Your task to perform on an android device: open a new tab in the chrome app Image 0: 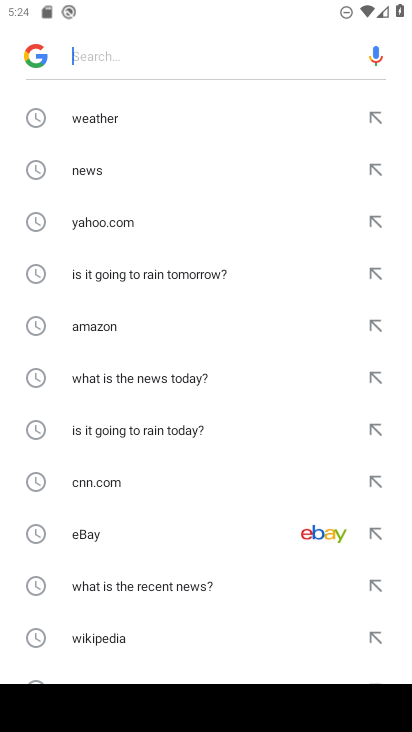
Step 0: press home button
Your task to perform on an android device: open a new tab in the chrome app Image 1: 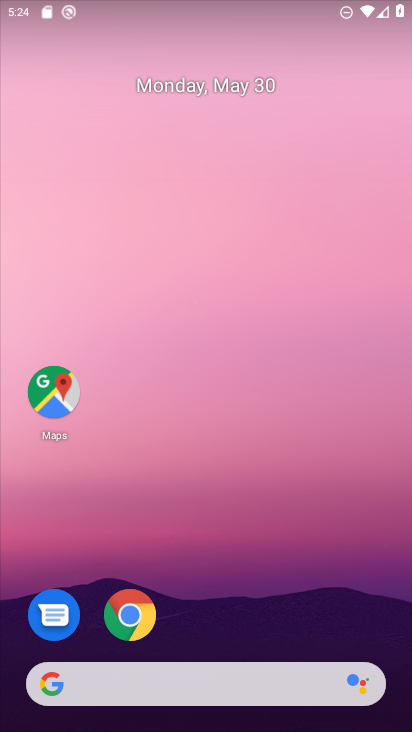
Step 1: click (141, 615)
Your task to perform on an android device: open a new tab in the chrome app Image 2: 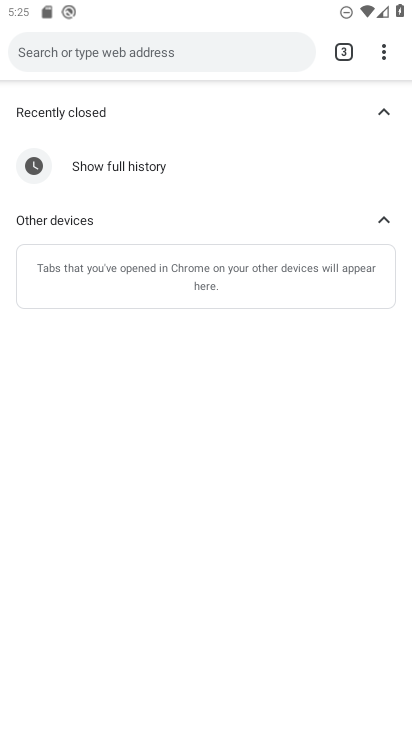
Step 2: click (345, 52)
Your task to perform on an android device: open a new tab in the chrome app Image 3: 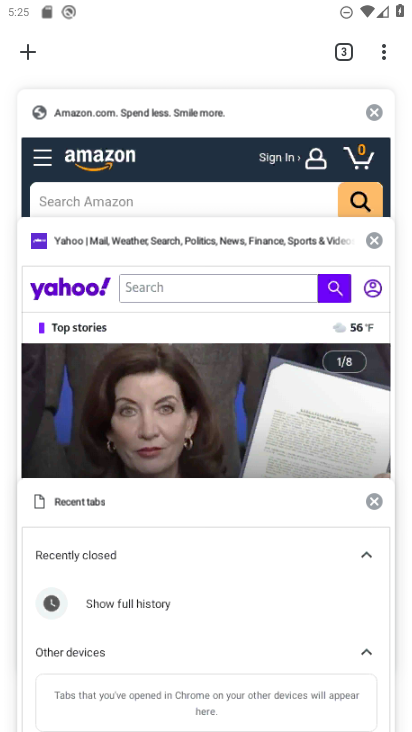
Step 3: click (32, 52)
Your task to perform on an android device: open a new tab in the chrome app Image 4: 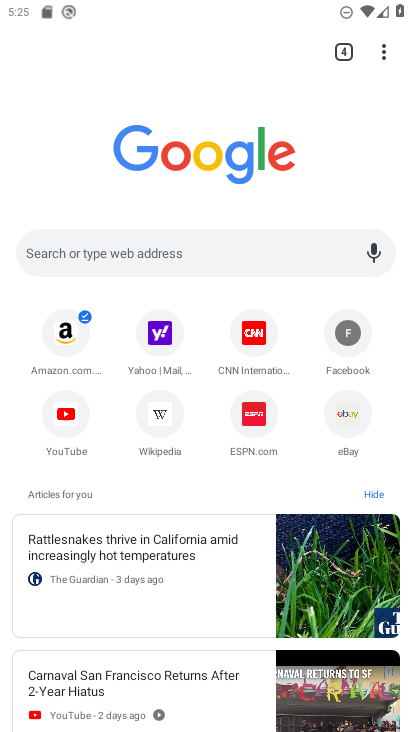
Step 4: task complete